Your task to perform on an android device: Turn on the flashlight Image 0: 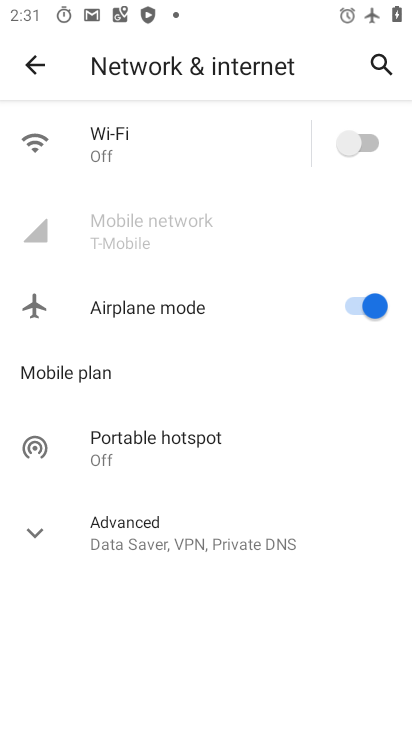
Step 0: press home button
Your task to perform on an android device: Turn on the flashlight Image 1: 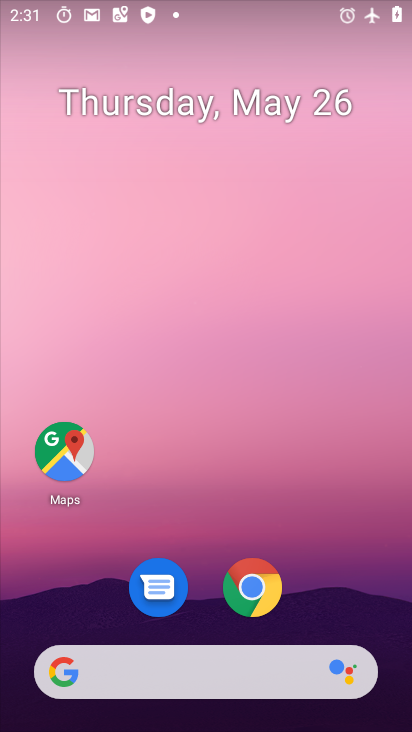
Step 1: drag from (260, 695) to (309, 177)
Your task to perform on an android device: Turn on the flashlight Image 2: 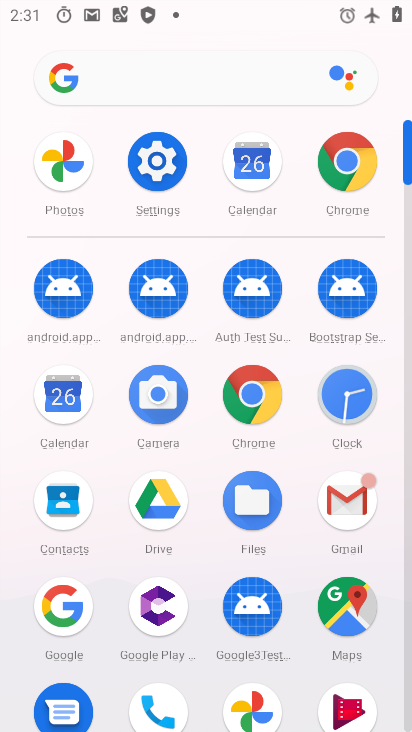
Step 2: click (166, 155)
Your task to perform on an android device: Turn on the flashlight Image 3: 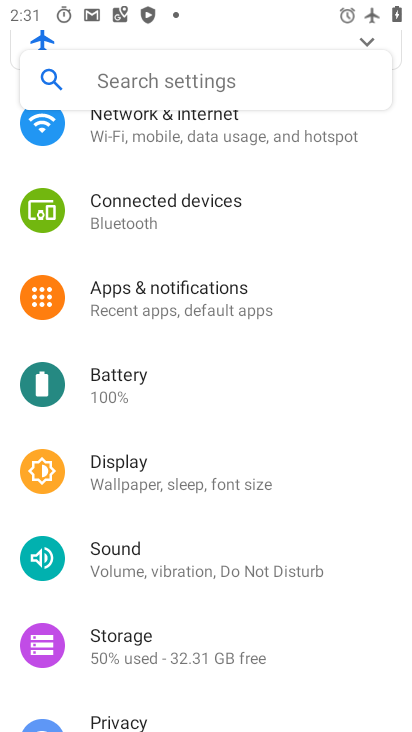
Step 3: click (151, 86)
Your task to perform on an android device: Turn on the flashlight Image 4: 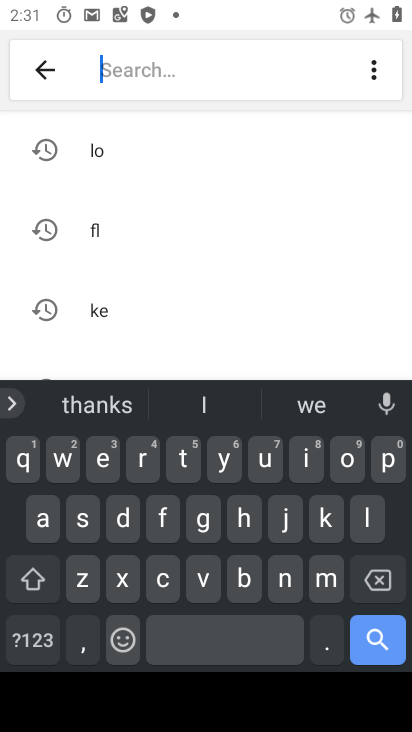
Step 4: click (160, 518)
Your task to perform on an android device: Turn on the flashlight Image 5: 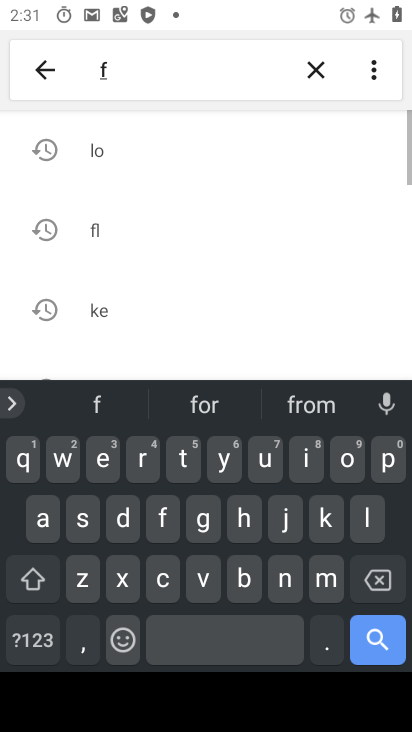
Step 5: click (364, 526)
Your task to perform on an android device: Turn on the flashlight Image 6: 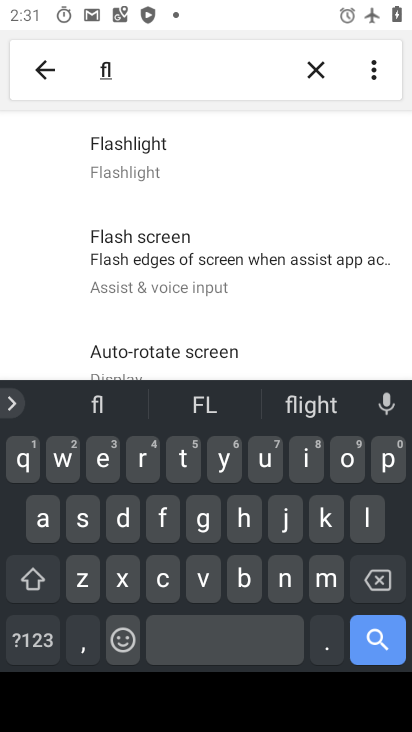
Step 6: click (164, 143)
Your task to perform on an android device: Turn on the flashlight Image 7: 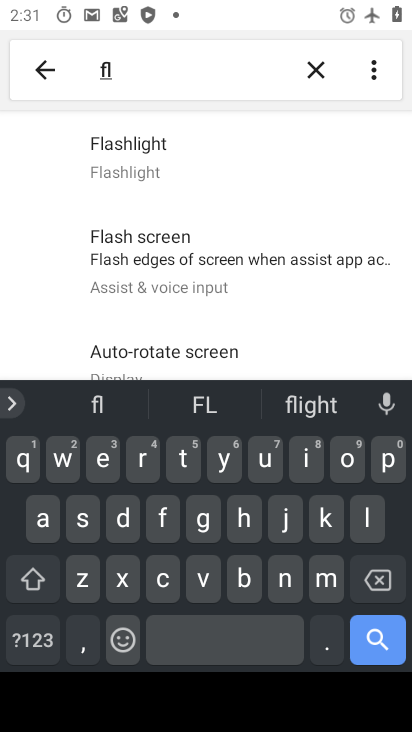
Step 7: task complete